Your task to perform on an android device: change notification settings in the gmail app Image 0: 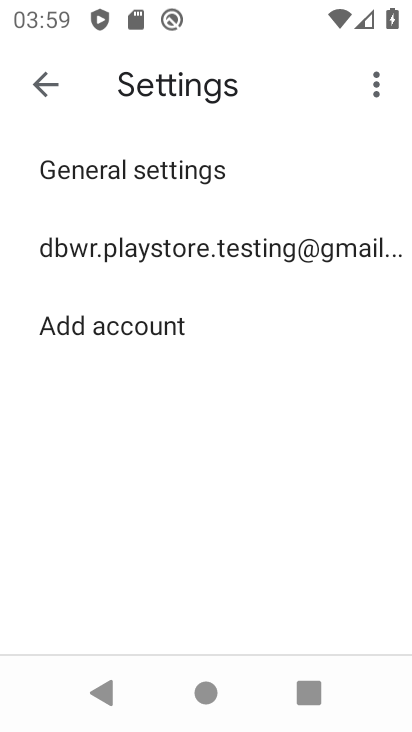
Step 0: press home button
Your task to perform on an android device: change notification settings in the gmail app Image 1: 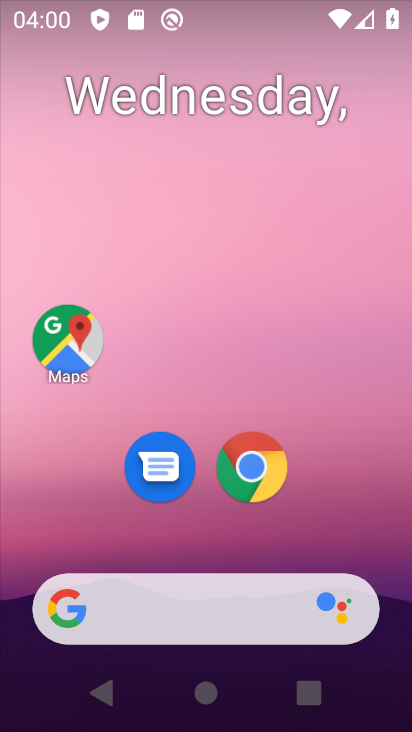
Step 1: drag from (388, 582) to (297, 118)
Your task to perform on an android device: change notification settings in the gmail app Image 2: 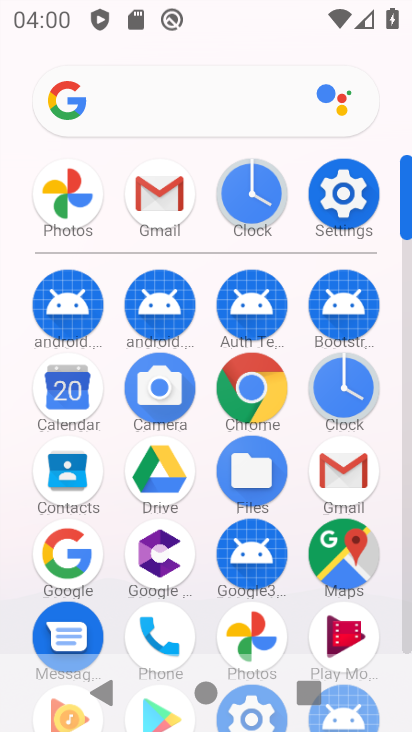
Step 2: click (406, 638)
Your task to perform on an android device: change notification settings in the gmail app Image 3: 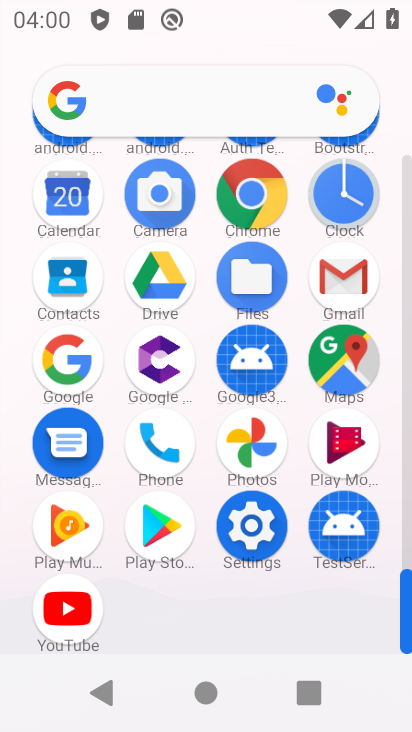
Step 3: click (344, 278)
Your task to perform on an android device: change notification settings in the gmail app Image 4: 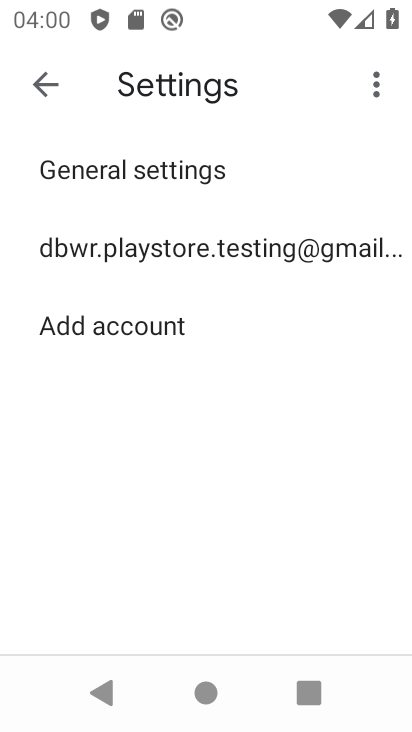
Step 4: click (120, 252)
Your task to perform on an android device: change notification settings in the gmail app Image 5: 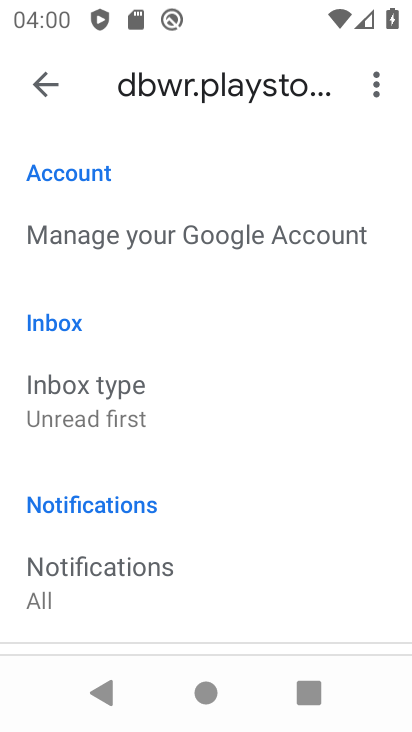
Step 5: drag from (241, 576) to (265, 355)
Your task to perform on an android device: change notification settings in the gmail app Image 6: 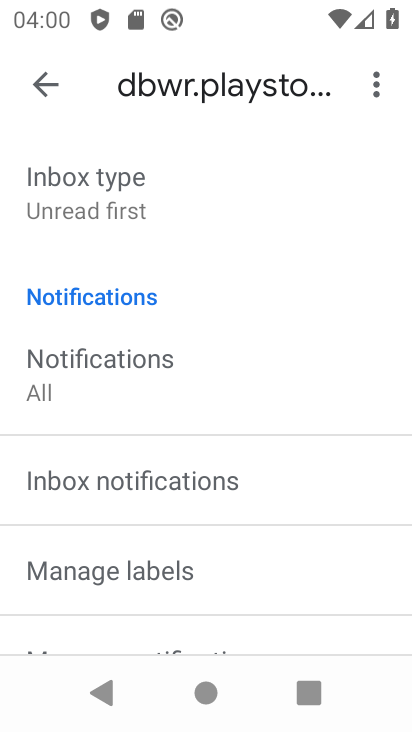
Step 6: drag from (252, 563) to (275, 249)
Your task to perform on an android device: change notification settings in the gmail app Image 7: 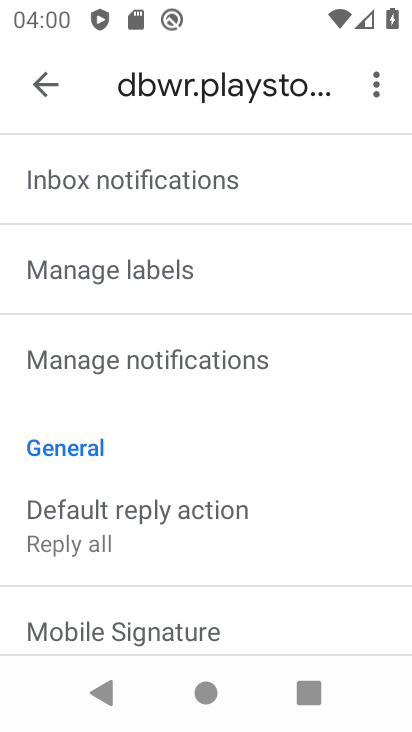
Step 7: click (89, 361)
Your task to perform on an android device: change notification settings in the gmail app Image 8: 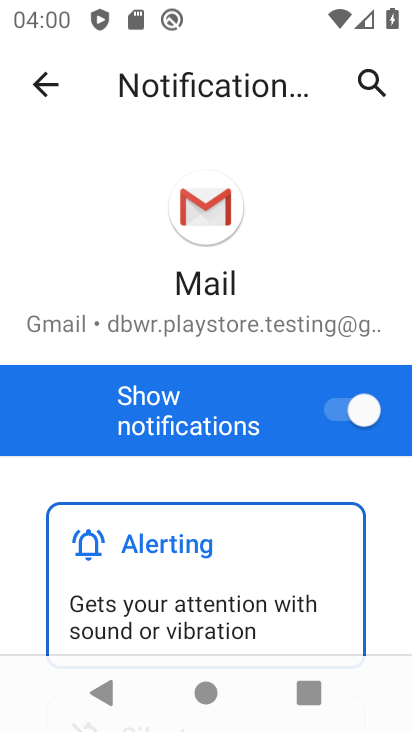
Step 8: drag from (321, 514) to (278, 135)
Your task to perform on an android device: change notification settings in the gmail app Image 9: 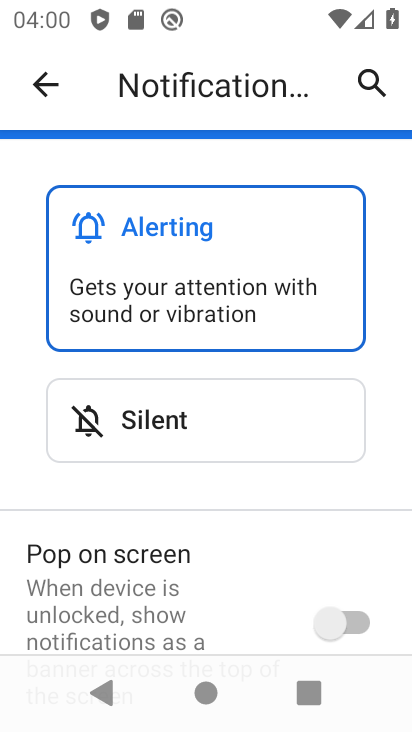
Step 9: drag from (304, 266) to (253, 573)
Your task to perform on an android device: change notification settings in the gmail app Image 10: 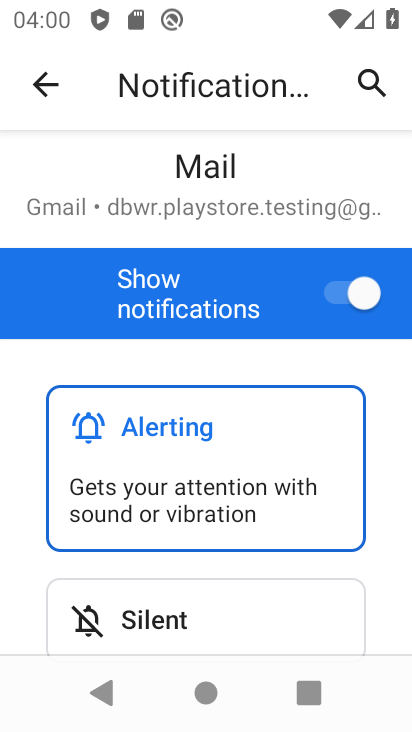
Step 10: click (330, 295)
Your task to perform on an android device: change notification settings in the gmail app Image 11: 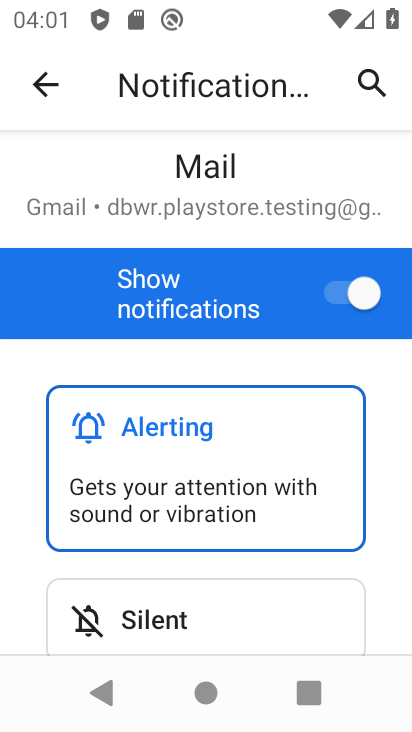
Step 11: click (330, 295)
Your task to perform on an android device: change notification settings in the gmail app Image 12: 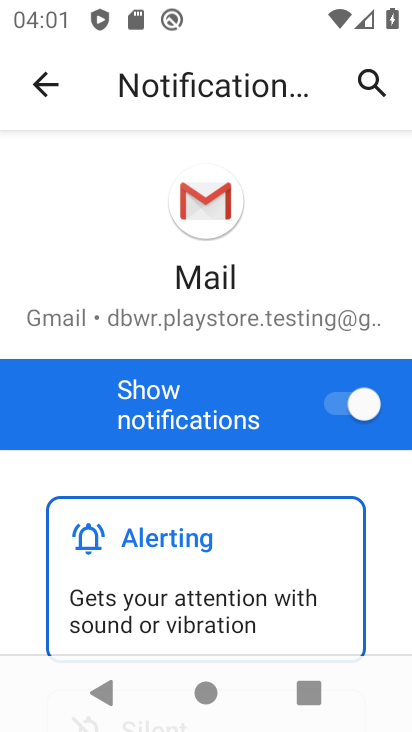
Step 12: click (344, 398)
Your task to perform on an android device: change notification settings in the gmail app Image 13: 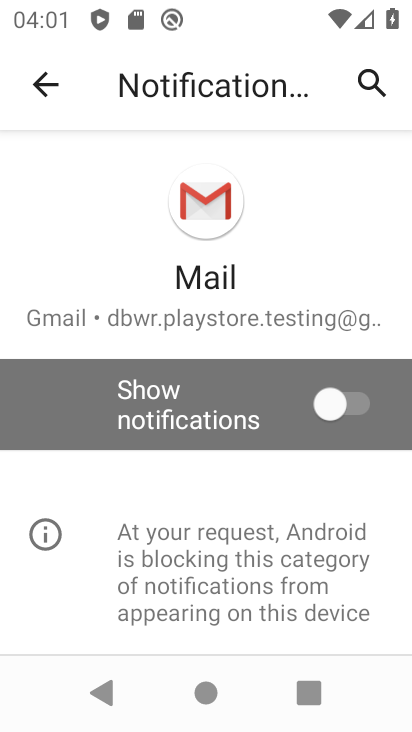
Step 13: task complete